Your task to perform on an android device: open a bookmark in the chrome app Image 0: 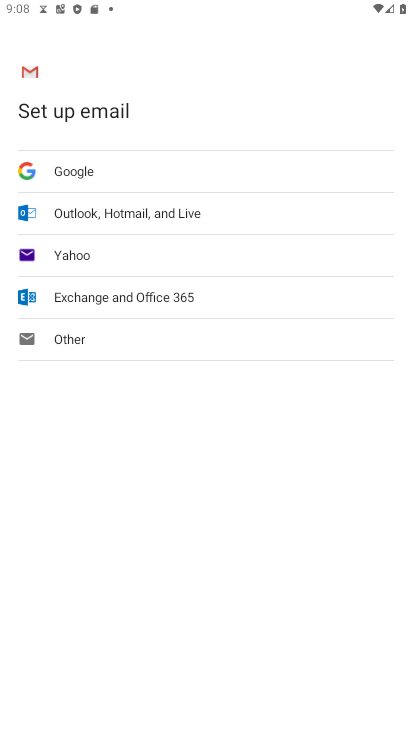
Step 0: press home button
Your task to perform on an android device: open a bookmark in the chrome app Image 1: 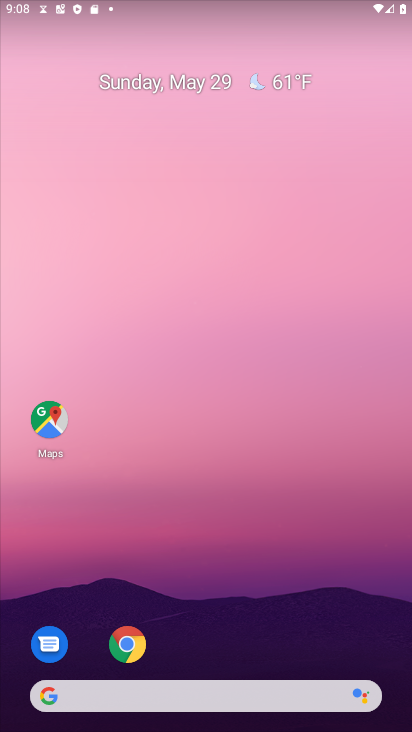
Step 1: click (115, 647)
Your task to perform on an android device: open a bookmark in the chrome app Image 2: 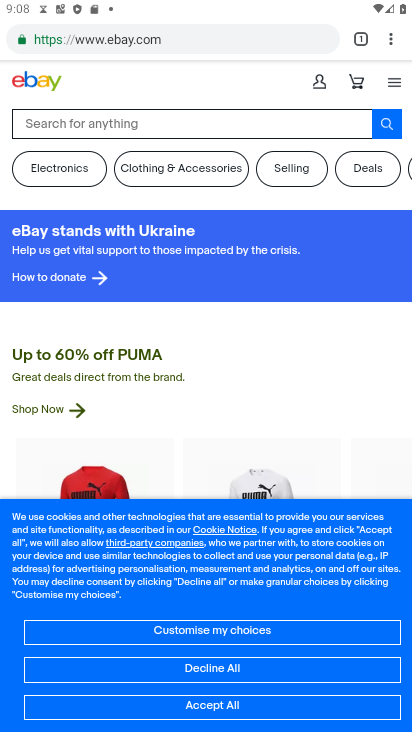
Step 2: drag from (393, 28) to (277, 143)
Your task to perform on an android device: open a bookmark in the chrome app Image 3: 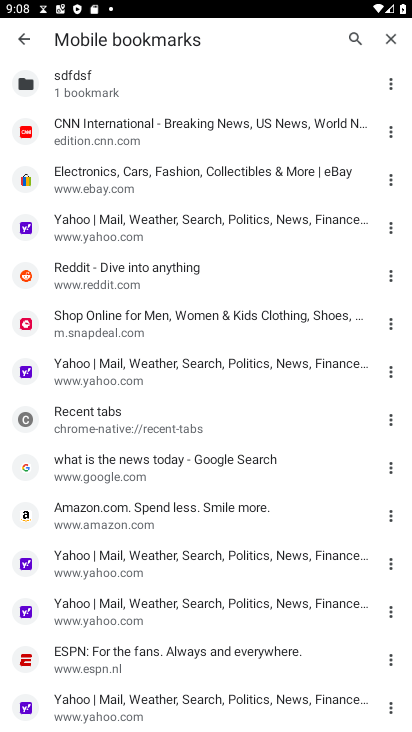
Step 3: click (108, 321)
Your task to perform on an android device: open a bookmark in the chrome app Image 4: 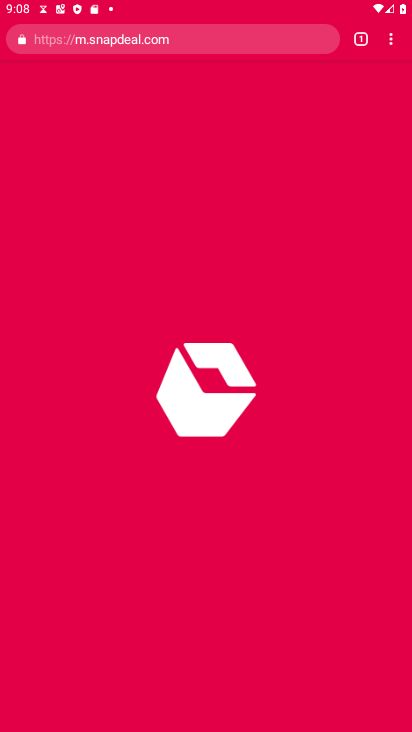
Step 4: task complete